Your task to perform on an android device: find which apps use the phone's location Image 0: 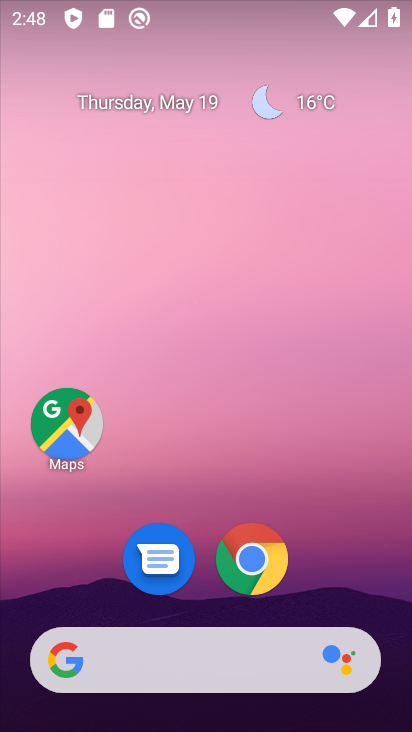
Step 0: drag from (212, 607) to (231, 268)
Your task to perform on an android device: find which apps use the phone's location Image 1: 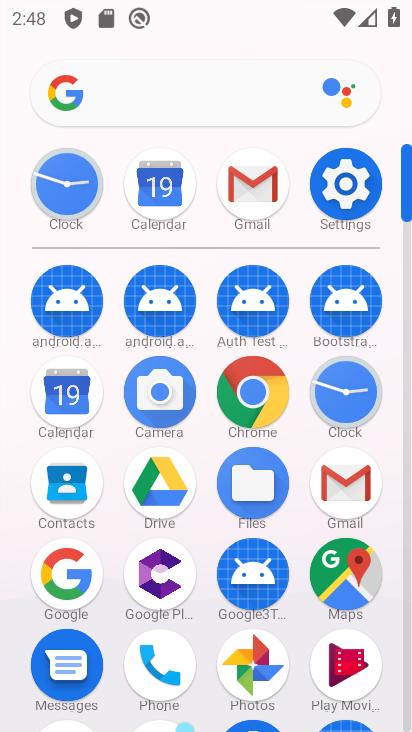
Step 1: click (370, 169)
Your task to perform on an android device: find which apps use the phone's location Image 2: 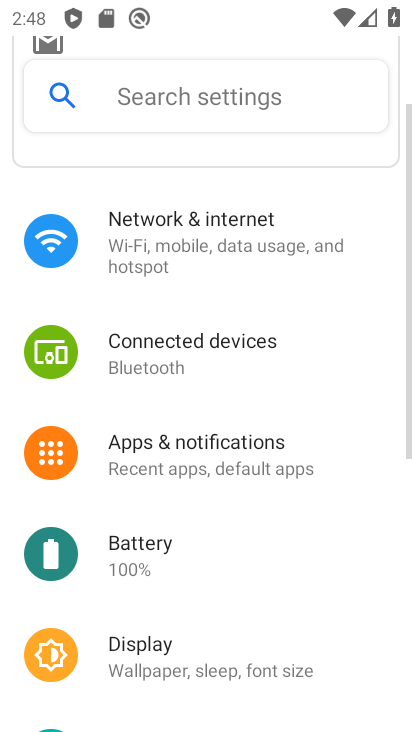
Step 2: drag from (260, 650) to (252, 284)
Your task to perform on an android device: find which apps use the phone's location Image 3: 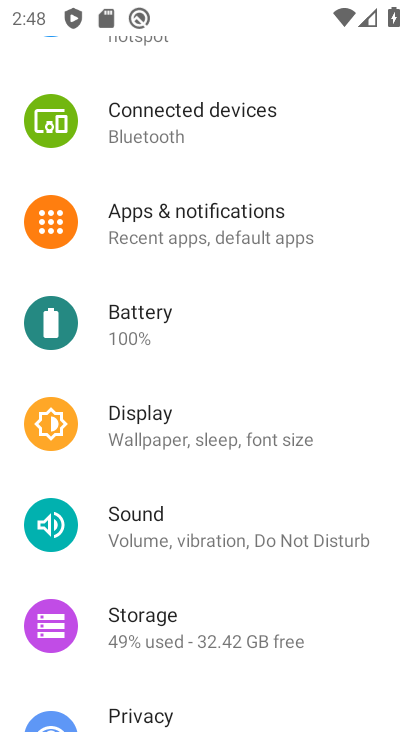
Step 3: drag from (193, 650) to (201, 350)
Your task to perform on an android device: find which apps use the phone's location Image 4: 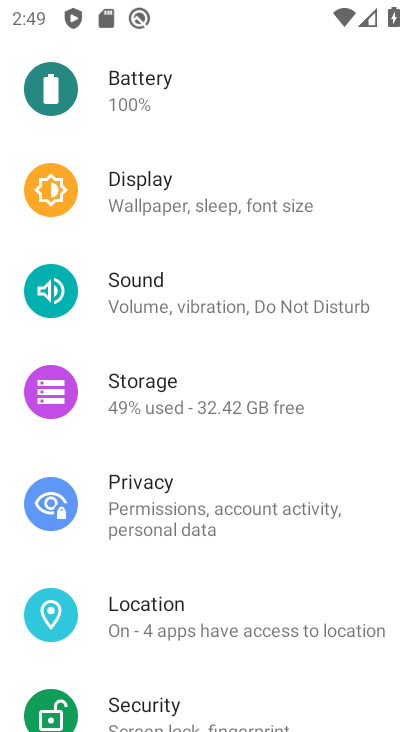
Step 4: click (198, 610)
Your task to perform on an android device: find which apps use the phone's location Image 5: 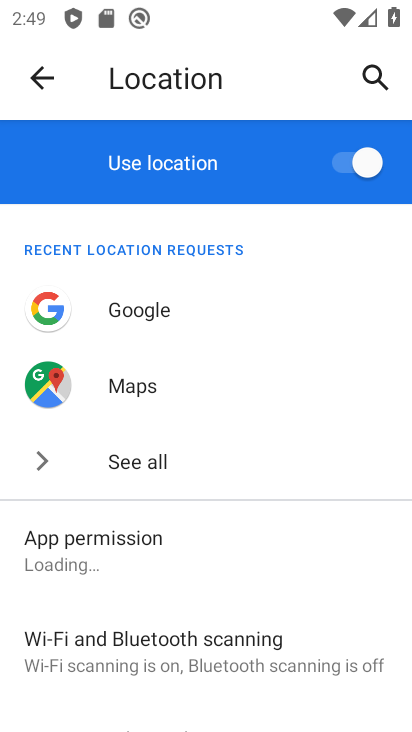
Step 5: click (174, 557)
Your task to perform on an android device: find which apps use the phone's location Image 6: 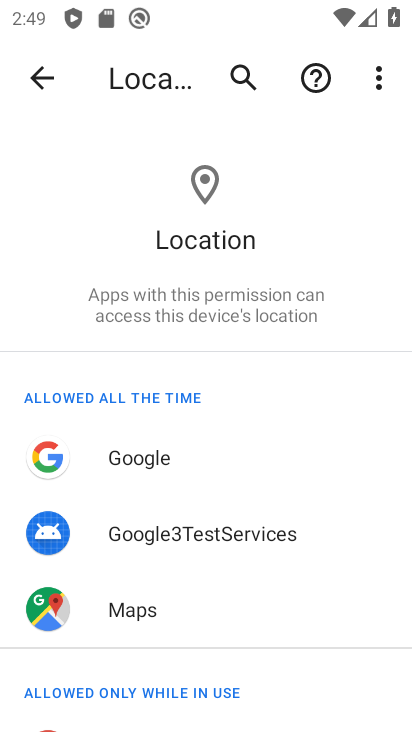
Step 6: task complete